Your task to perform on an android device: Open eBay Image 0: 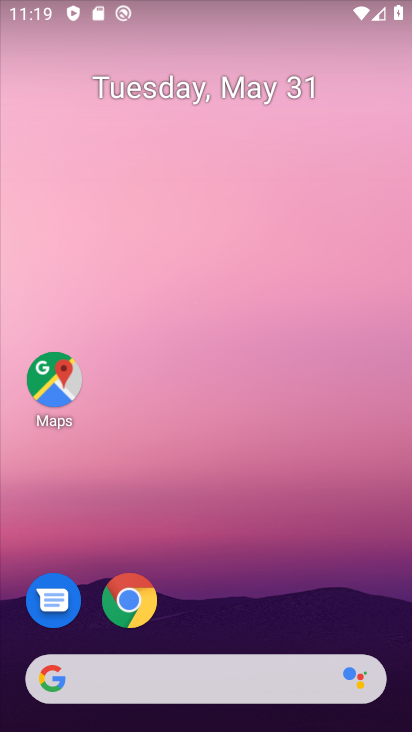
Step 0: drag from (349, 616) to (333, 97)
Your task to perform on an android device: Open eBay Image 1: 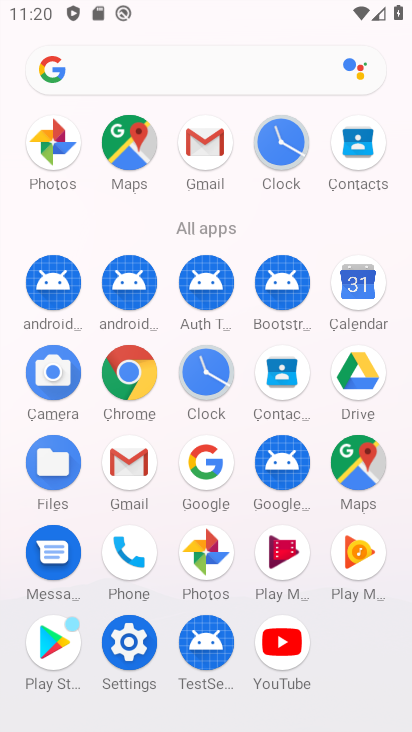
Step 1: click (141, 385)
Your task to perform on an android device: Open eBay Image 2: 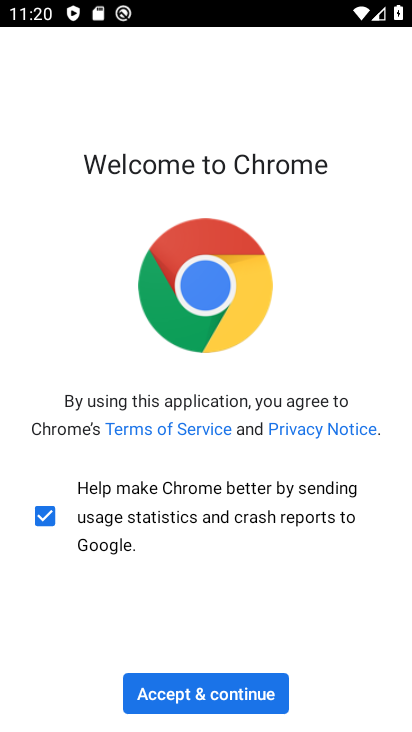
Step 2: click (238, 698)
Your task to perform on an android device: Open eBay Image 3: 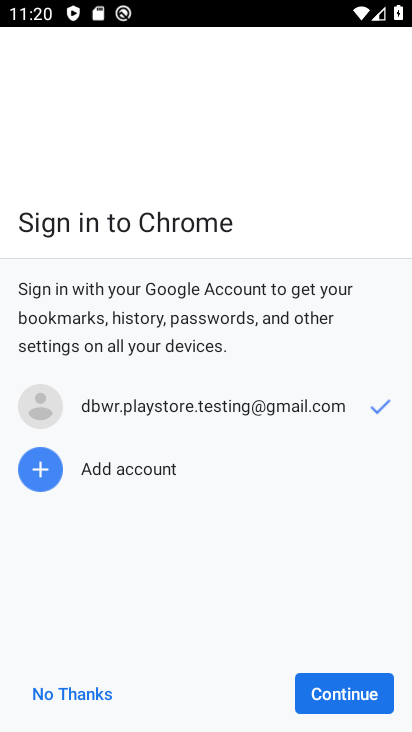
Step 3: click (355, 686)
Your task to perform on an android device: Open eBay Image 4: 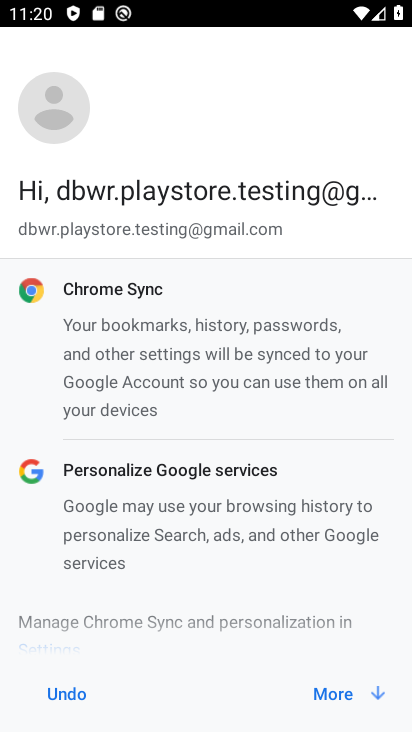
Step 4: click (331, 697)
Your task to perform on an android device: Open eBay Image 5: 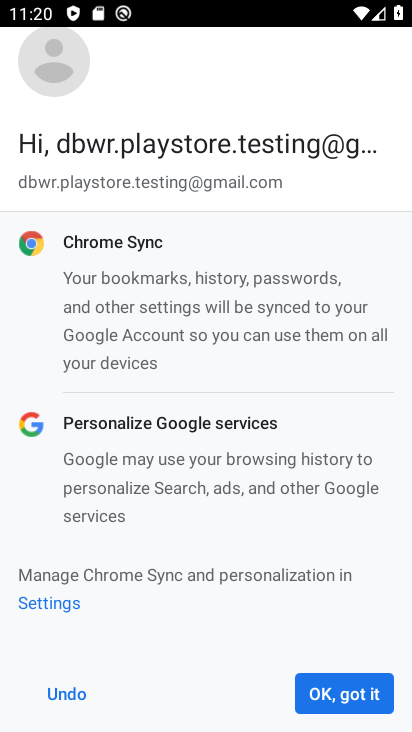
Step 5: click (331, 697)
Your task to perform on an android device: Open eBay Image 6: 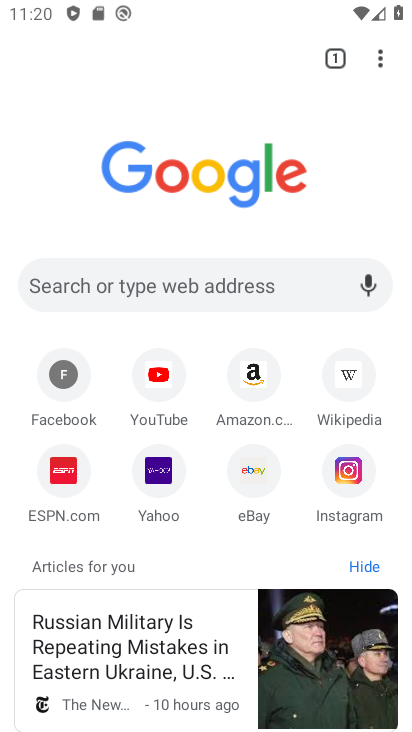
Step 6: click (224, 284)
Your task to perform on an android device: Open eBay Image 7: 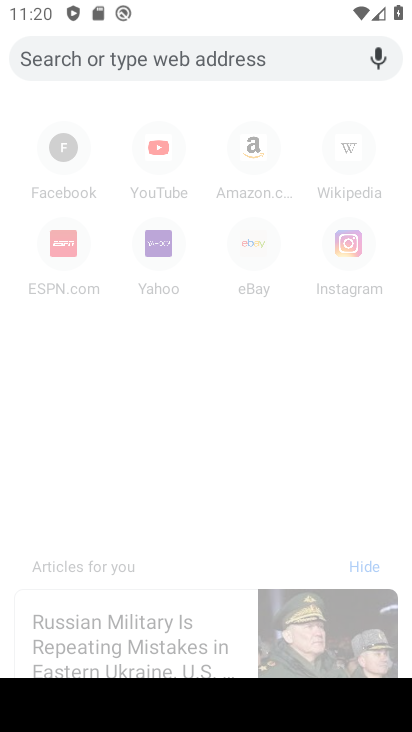
Step 7: type "ebay"
Your task to perform on an android device: Open eBay Image 8: 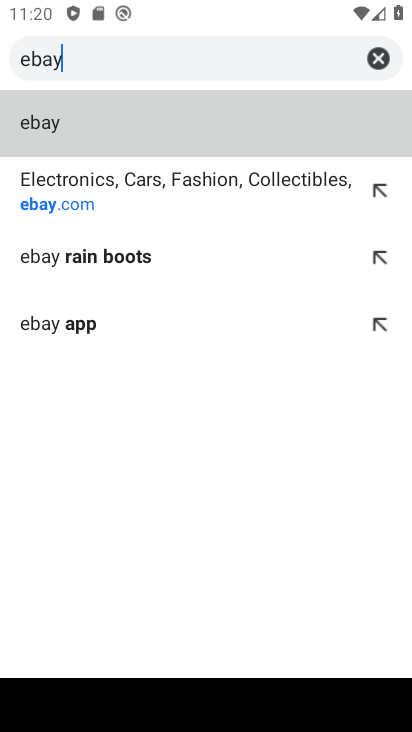
Step 8: click (86, 179)
Your task to perform on an android device: Open eBay Image 9: 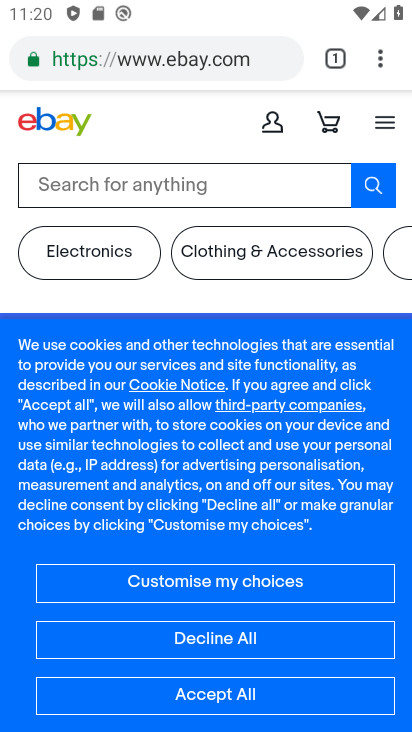
Step 9: task complete